Your task to perform on an android device: open a new tab in the chrome app Image 0: 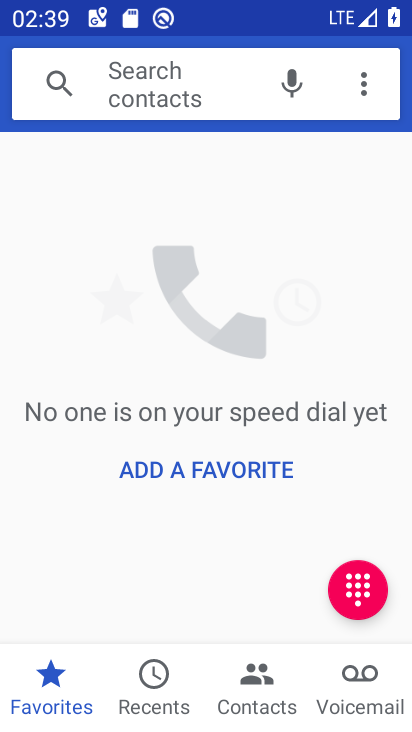
Step 0: press enter
Your task to perform on an android device: open a new tab in the chrome app Image 1: 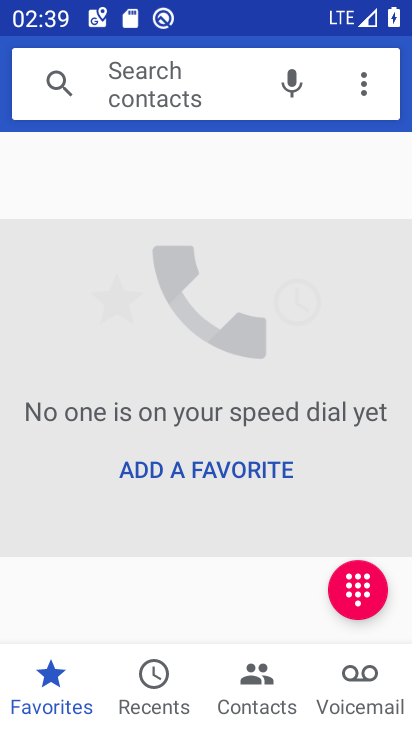
Step 1: press home button
Your task to perform on an android device: open a new tab in the chrome app Image 2: 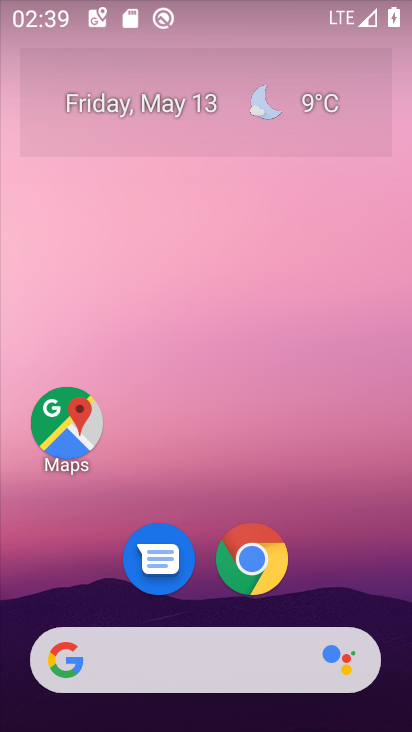
Step 2: click (226, 566)
Your task to perform on an android device: open a new tab in the chrome app Image 3: 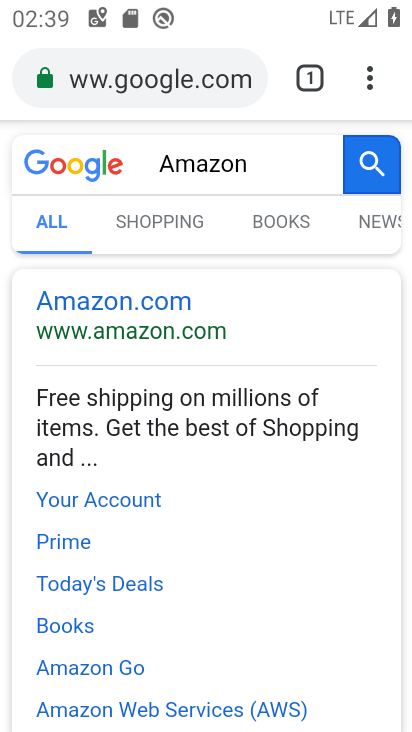
Step 3: click (365, 79)
Your task to perform on an android device: open a new tab in the chrome app Image 4: 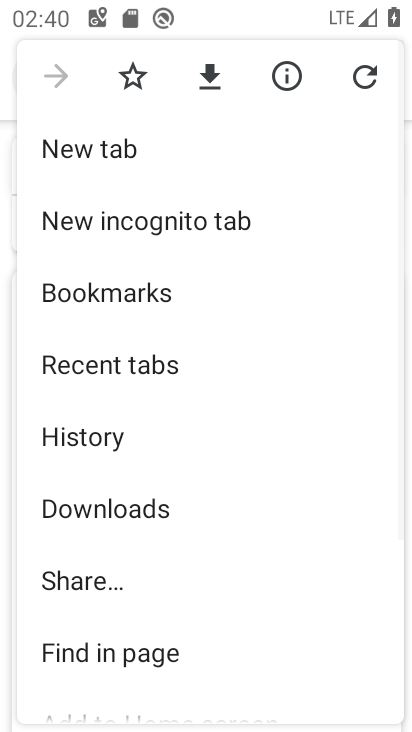
Step 4: click (85, 140)
Your task to perform on an android device: open a new tab in the chrome app Image 5: 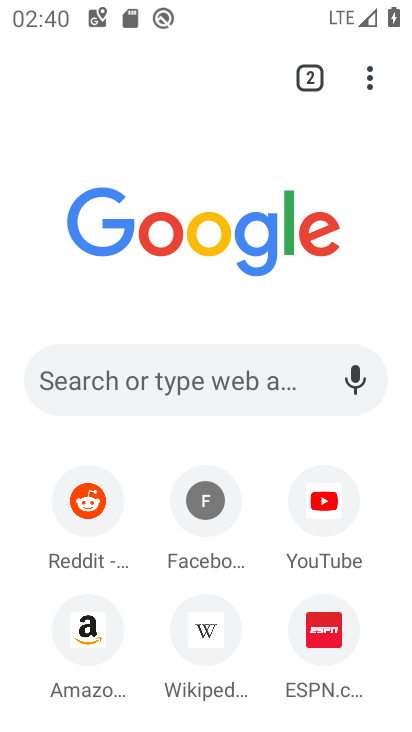
Step 5: task complete